Your task to perform on an android device: Open notification settings Image 0: 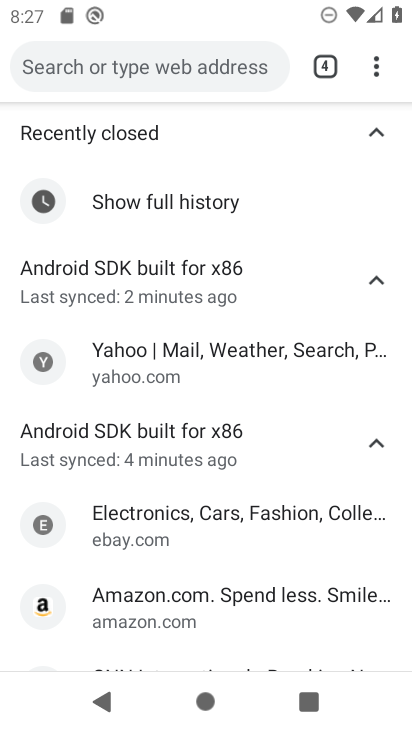
Step 0: press home button
Your task to perform on an android device: Open notification settings Image 1: 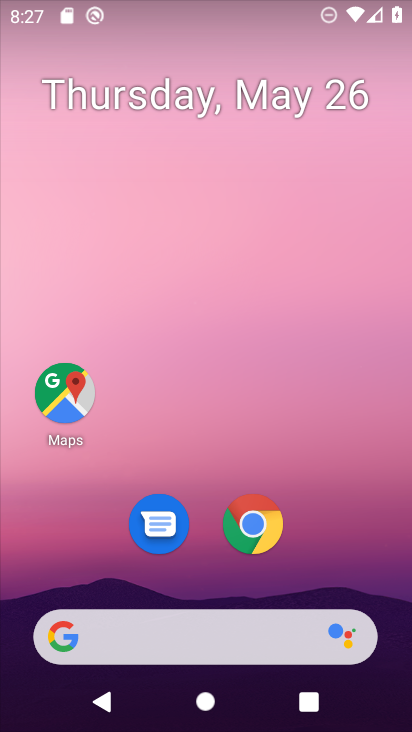
Step 1: drag from (302, 566) to (306, 33)
Your task to perform on an android device: Open notification settings Image 2: 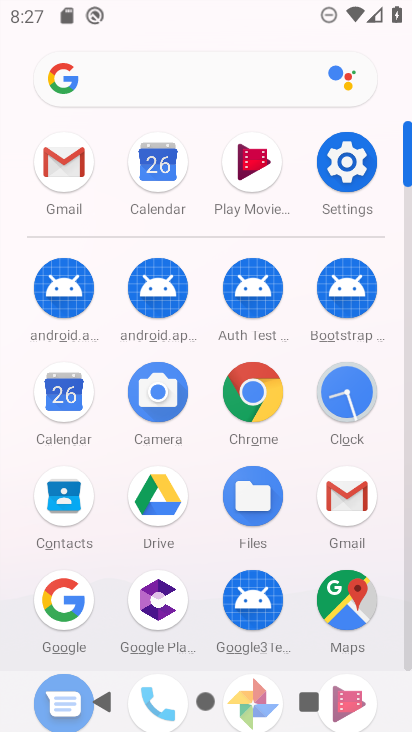
Step 2: click (344, 154)
Your task to perform on an android device: Open notification settings Image 3: 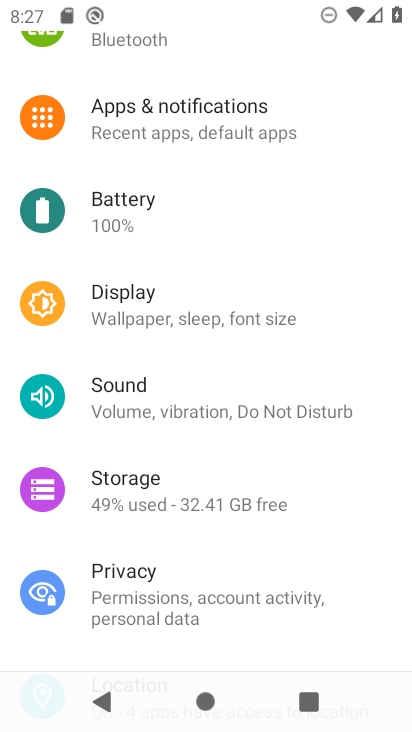
Step 3: click (236, 126)
Your task to perform on an android device: Open notification settings Image 4: 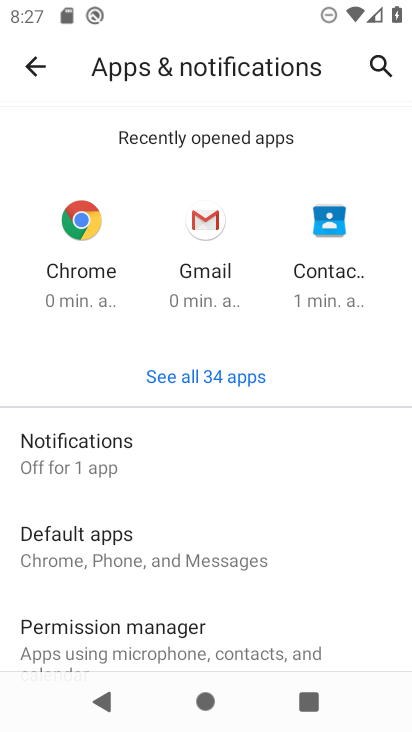
Step 4: click (149, 440)
Your task to perform on an android device: Open notification settings Image 5: 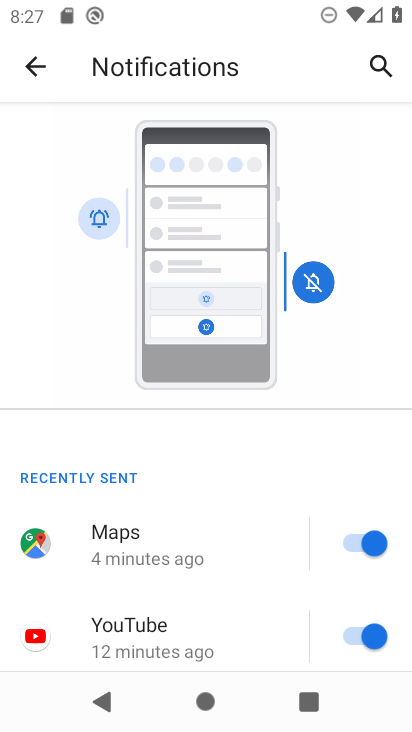
Step 5: task complete